Your task to perform on an android device: Turn on the flashlight Image 0: 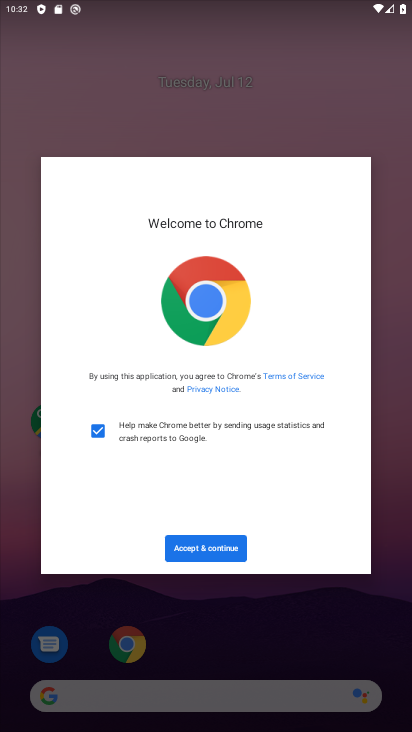
Step 0: press home button
Your task to perform on an android device: Turn on the flashlight Image 1: 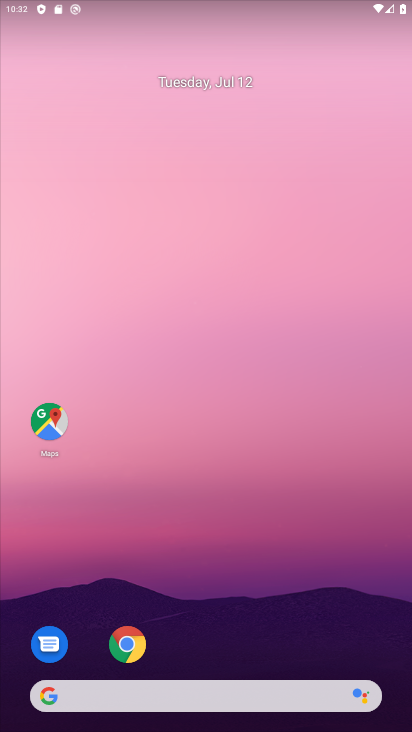
Step 1: drag from (300, 618) to (307, 48)
Your task to perform on an android device: Turn on the flashlight Image 2: 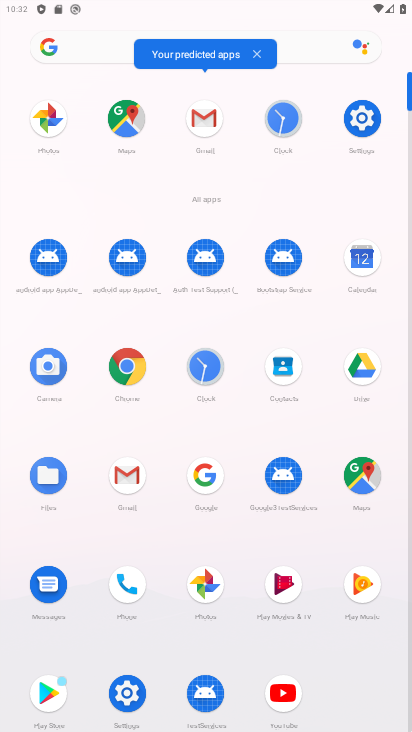
Step 2: click (370, 128)
Your task to perform on an android device: Turn on the flashlight Image 3: 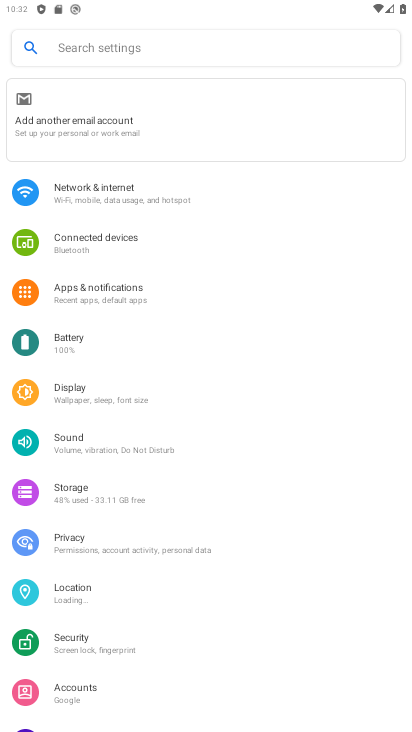
Step 3: task complete